Your task to perform on an android device: turn off smart reply in the gmail app Image 0: 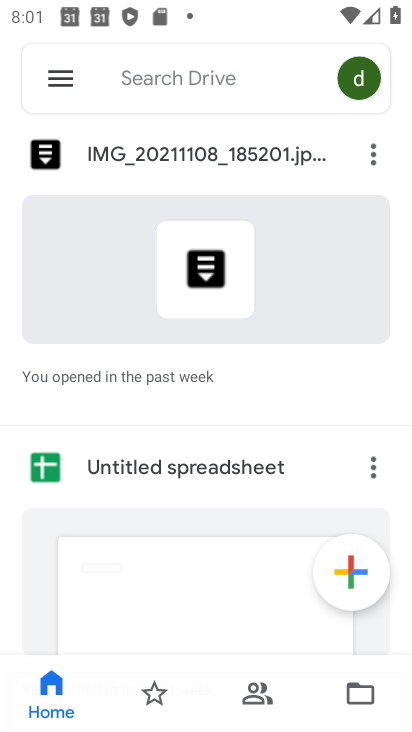
Step 0: press home button
Your task to perform on an android device: turn off smart reply in the gmail app Image 1: 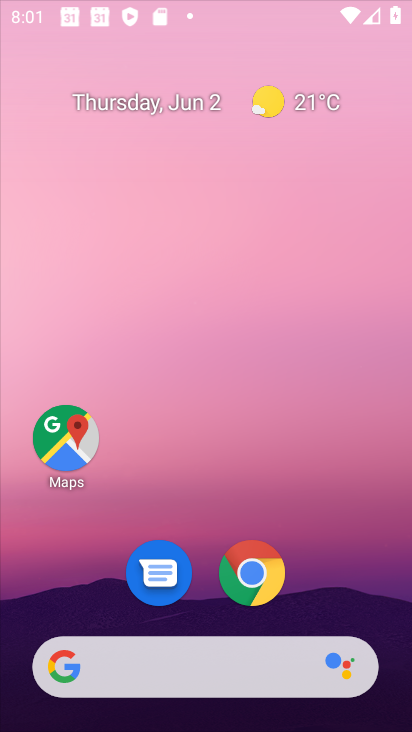
Step 1: drag from (200, 584) to (168, 68)
Your task to perform on an android device: turn off smart reply in the gmail app Image 2: 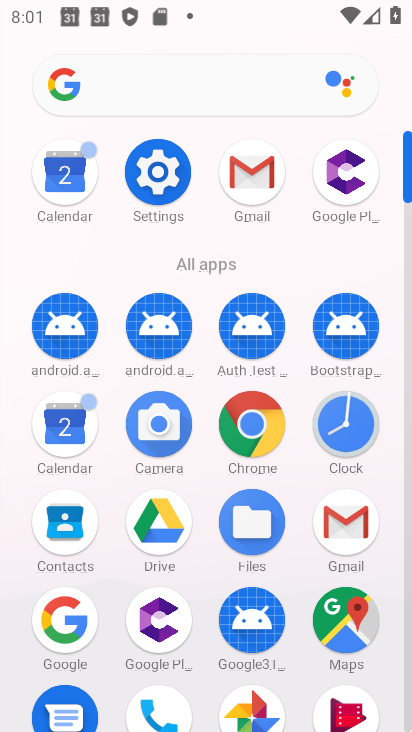
Step 2: click (277, 171)
Your task to perform on an android device: turn off smart reply in the gmail app Image 3: 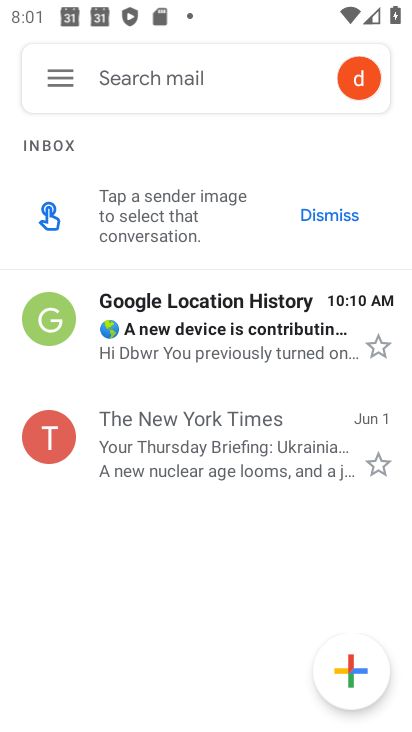
Step 3: click (75, 69)
Your task to perform on an android device: turn off smart reply in the gmail app Image 4: 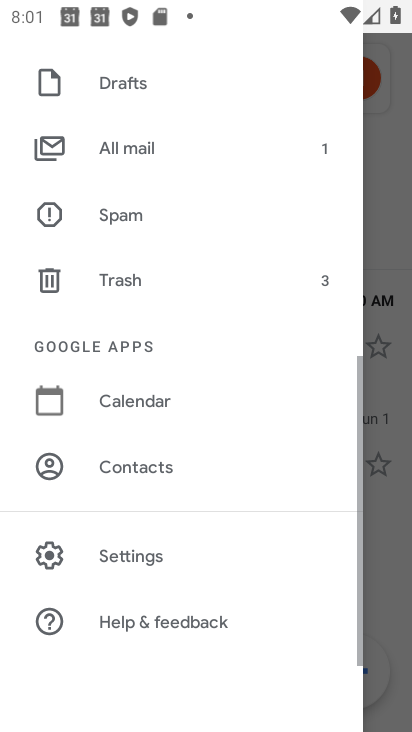
Step 4: click (99, 549)
Your task to perform on an android device: turn off smart reply in the gmail app Image 5: 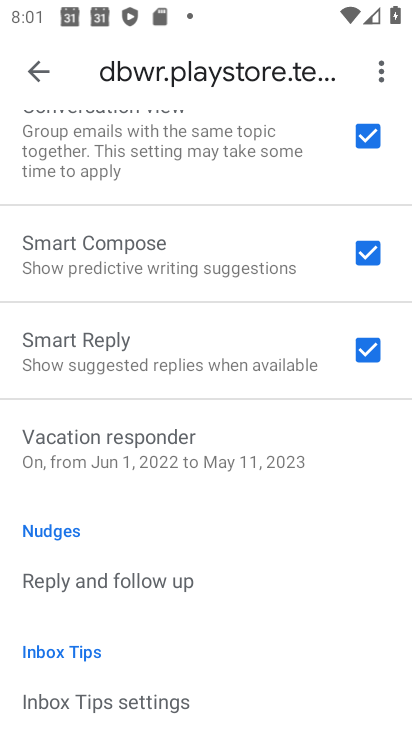
Step 5: click (369, 349)
Your task to perform on an android device: turn off smart reply in the gmail app Image 6: 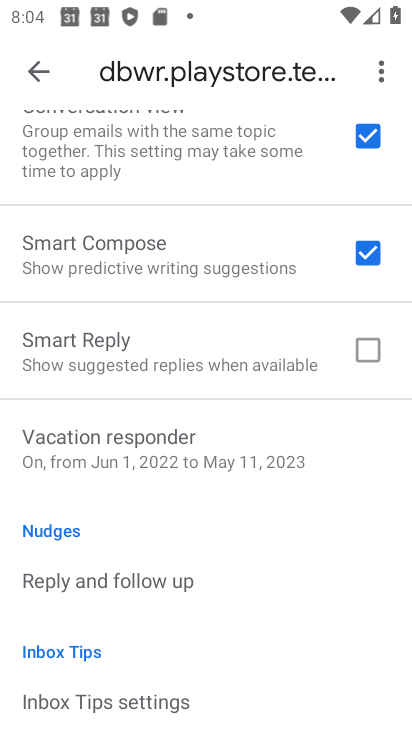
Step 6: task complete